Your task to perform on an android device: Go to CNN.com Image 0: 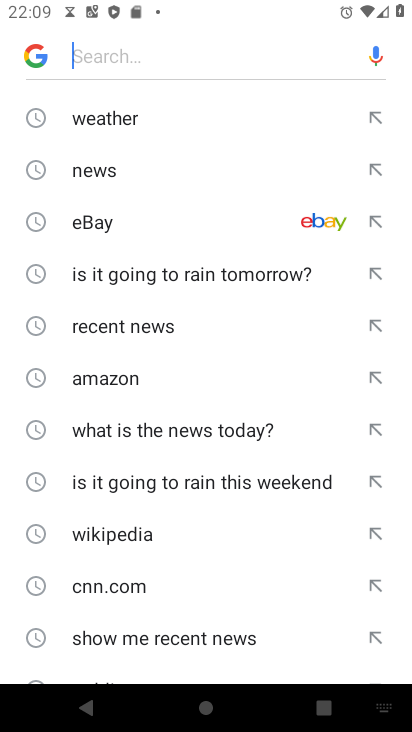
Step 0: press home button
Your task to perform on an android device: Go to CNN.com Image 1: 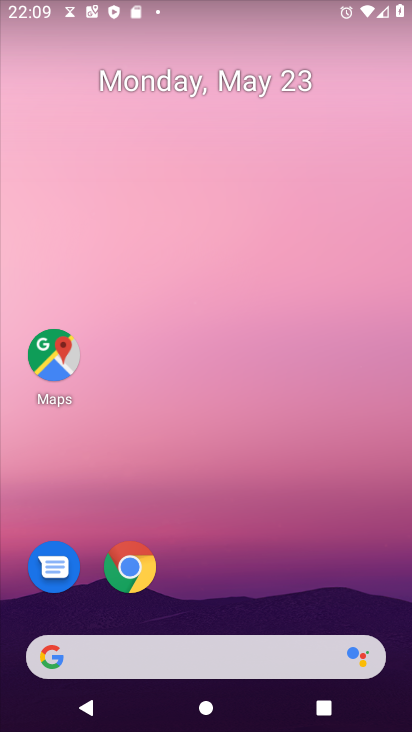
Step 1: click (50, 347)
Your task to perform on an android device: Go to CNN.com Image 2: 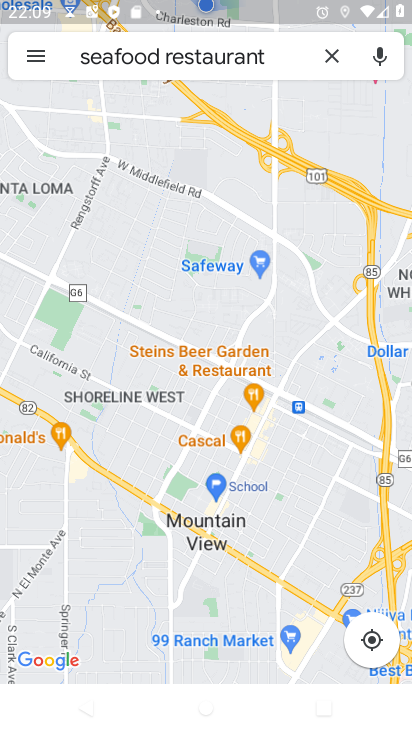
Step 2: click (326, 55)
Your task to perform on an android device: Go to CNN.com Image 3: 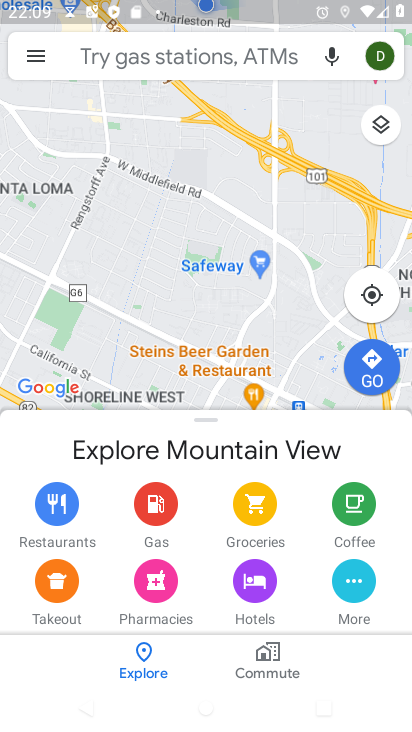
Step 3: press home button
Your task to perform on an android device: Go to CNN.com Image 4: 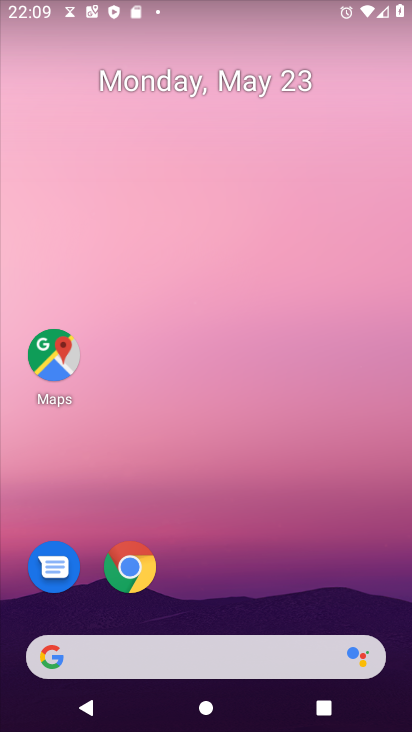
Step 4: drag from (241, 560) to (237, 291)
Your task to perform on an android device: Go to CNN.com Image 5: 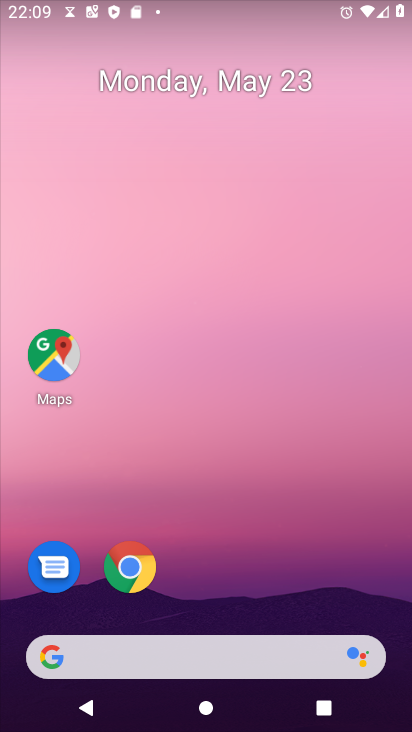
Step 5: drag from (215, 576) to (220, 171)
Your task to perform on an android device: Go to CNN.com Image 6: 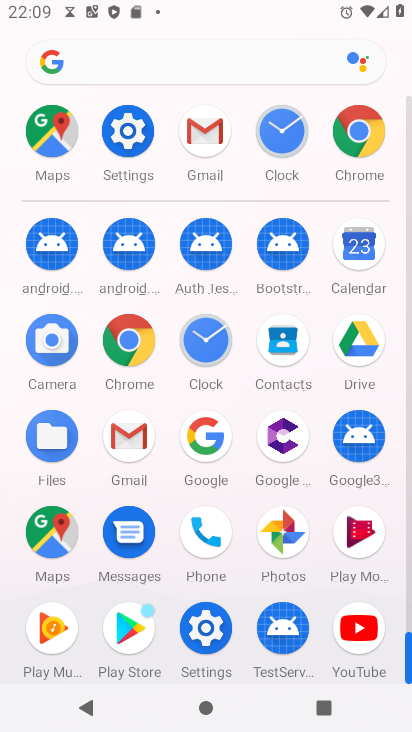
Step 6: click (122, 335)
Your task to perform on an android device: Go to CNN.com Image 7: 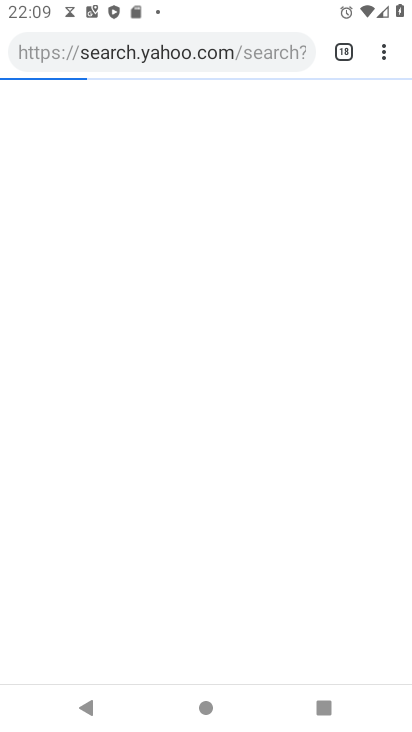
Step 7: click (385, 57)
Your task to perform on an android device: Go to CNN.com Image 8: 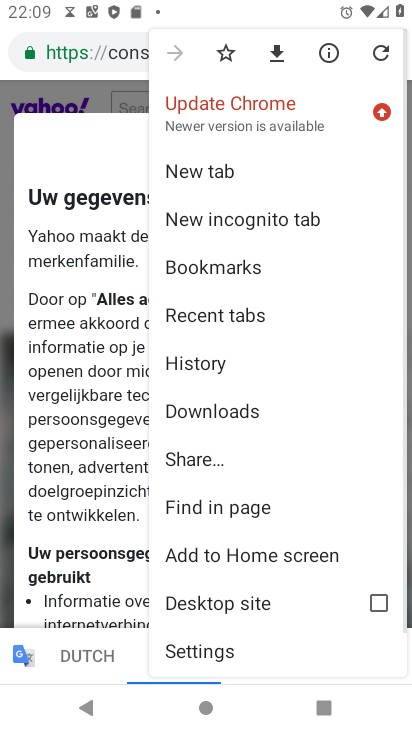
Step 8: click (221, 188)
Your task to perform on an android device: Go to CNN.com Image 9: 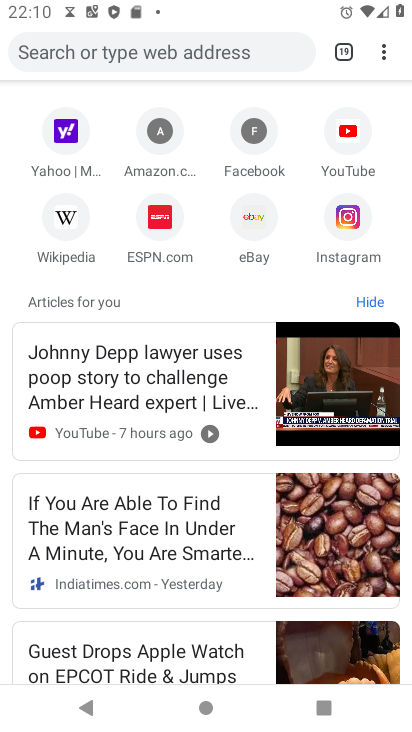
Step 9: click (207, 42)
Your task to perform on an android device: Go to CNN.com Image 10: 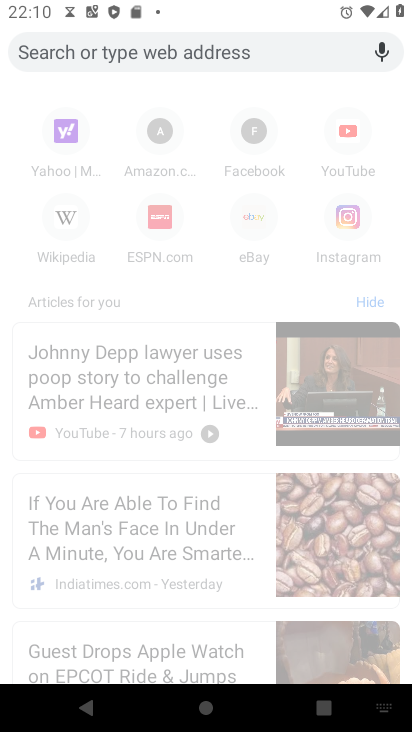
Step 10: click (216, 50)
Your task to perform on an android device: Go to CNN.com Image 11: 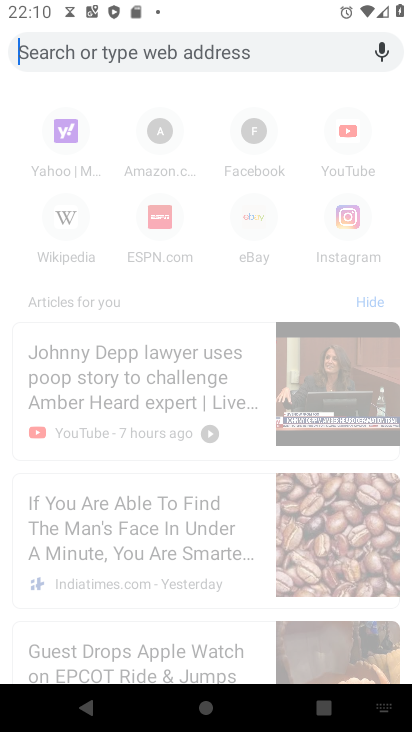
Step 11: click (215, 50)
Your task to perform on an android device: Go to CNN.com Image 12: 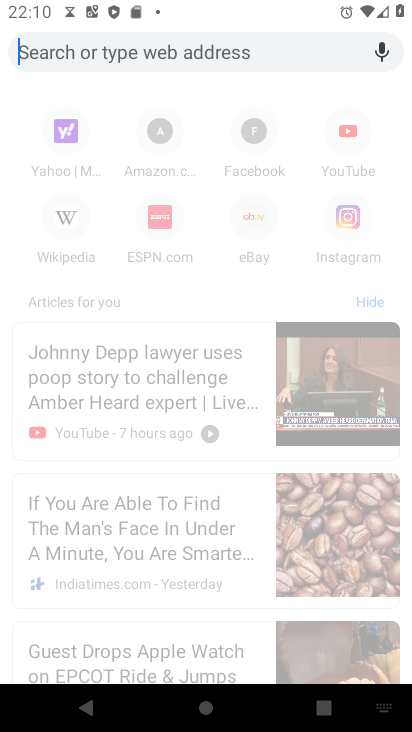
Step 12: type "CNN.com"
Your task to perform on an android device: Go to CNN.com Image 13: 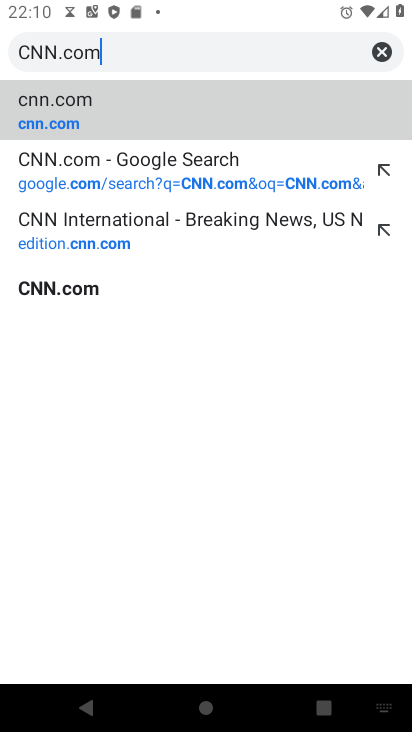
Step 13: click (186, 117)
Your task to perform on an android device: Go to CNN.com Image 14: 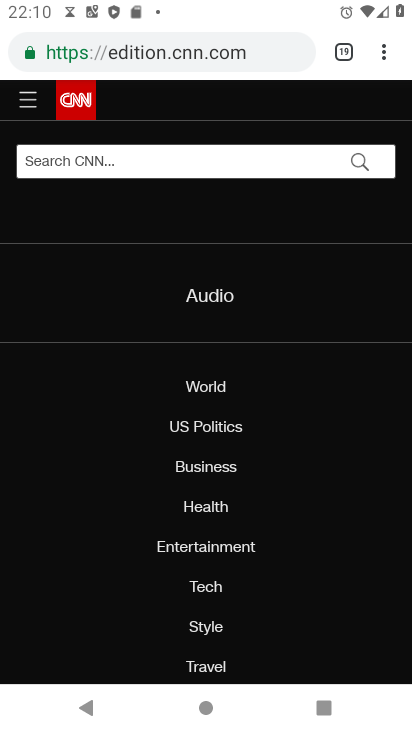
Step 14: task complete